Your task to perform on an android device: What is the news today? Image 0: 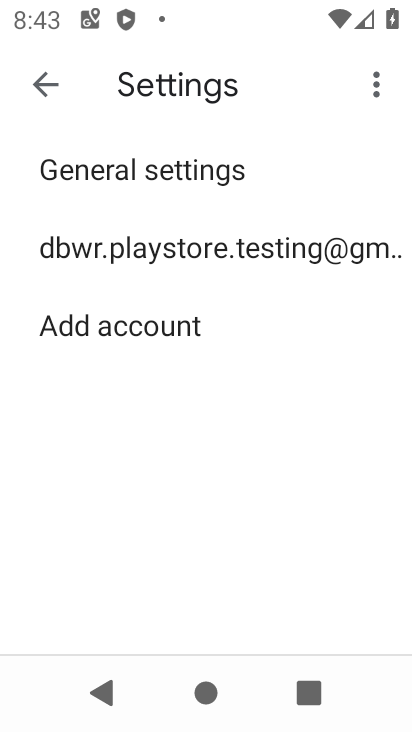
Step 0: press home button
Your task to perform on an android device: What is the news today? Image 1: 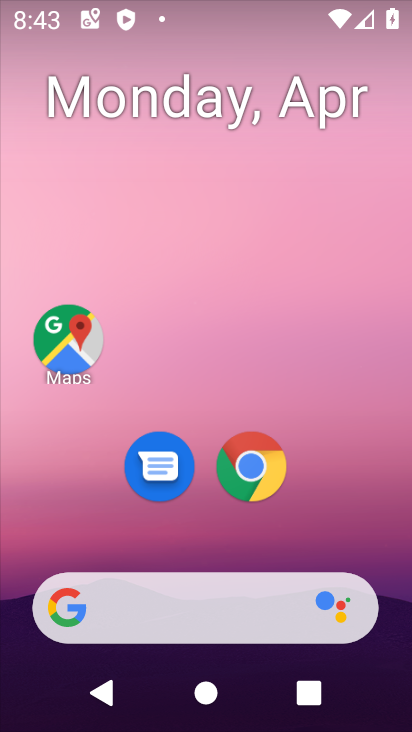
Step 1: drag from (210, 542) to (272, 165)
Your task to perform on an android device: What is the news today? Image 2: 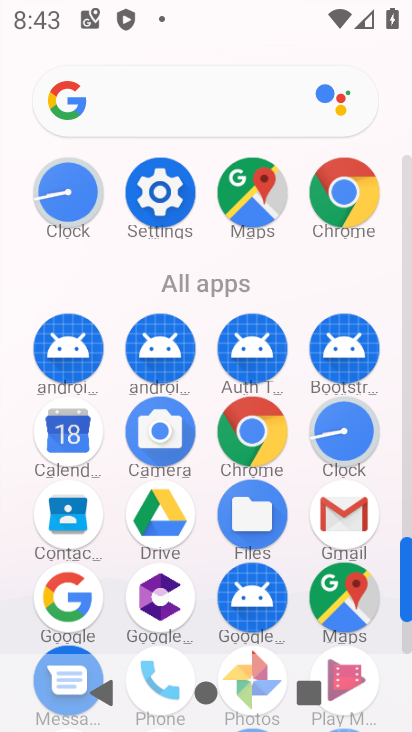
Step 2: click (67, 599)
Your task to perform on an android device: What is the news today? Image 3: 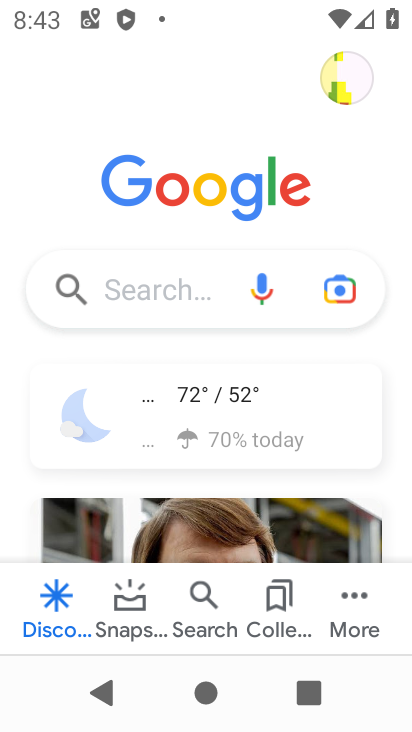
Step 3: drag from (250, 513) to (315, 298)
Your task to perform on an android device: What is the news today? Image 4: 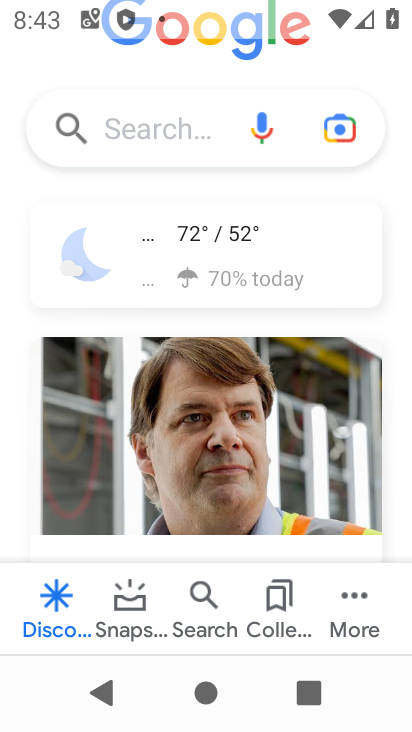
Step 4: drag from (253, 424) to (314, 283)
Your task to perform on an android device: What is the news today? Image 5: 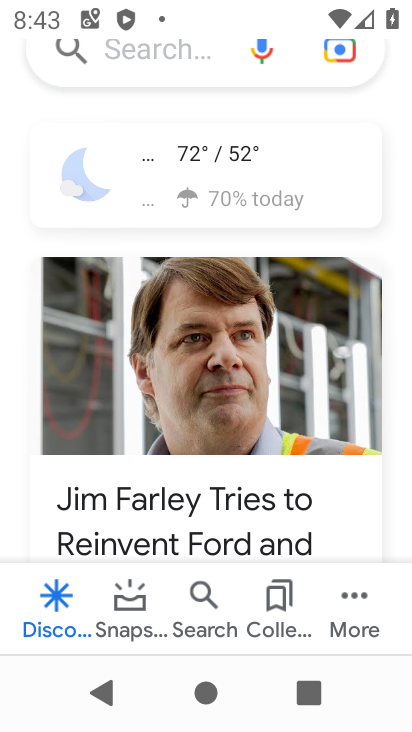
Step 5: drag from (224, 406) to (253, 296)
Your task to perform on an android device: What is the news today? Image 6: 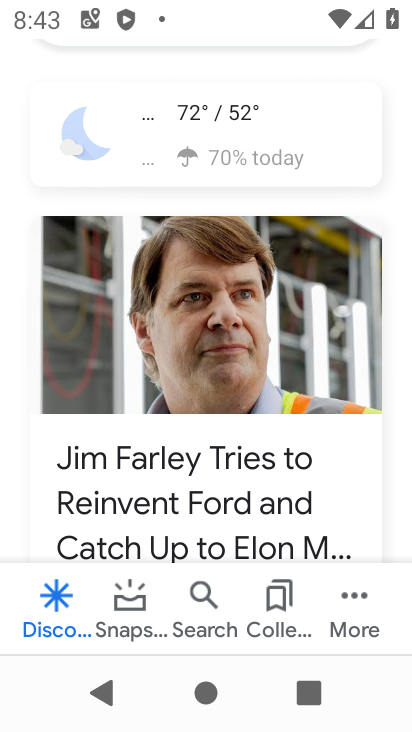
Step 6: drag from (220, 515) to (251, 297)
Your task to perform on an android device: What is the news today? Image 7: 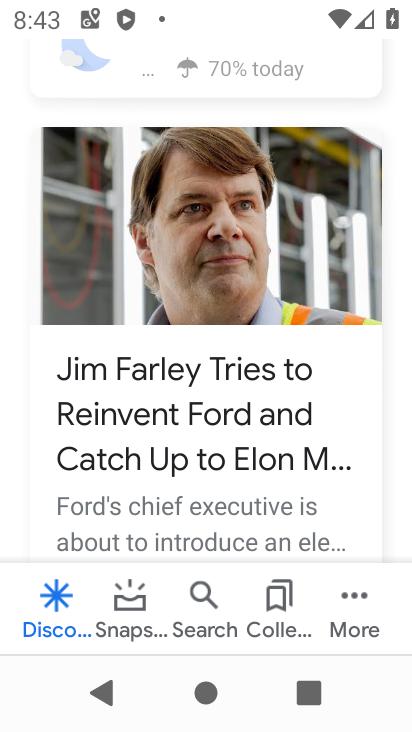
Step 7: drag from (214, 496) to (249, 256)
Your task to perform on an android device: What is the news today? Image 8: 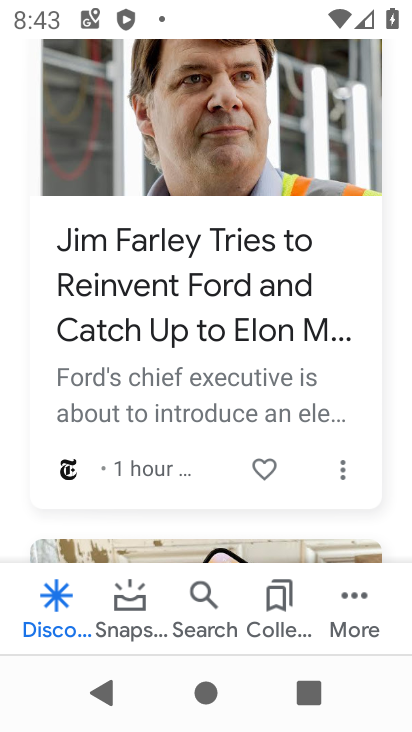
Step 8: click (201, 286)
Your task to perform on an android device: What is the news today? Image 9: 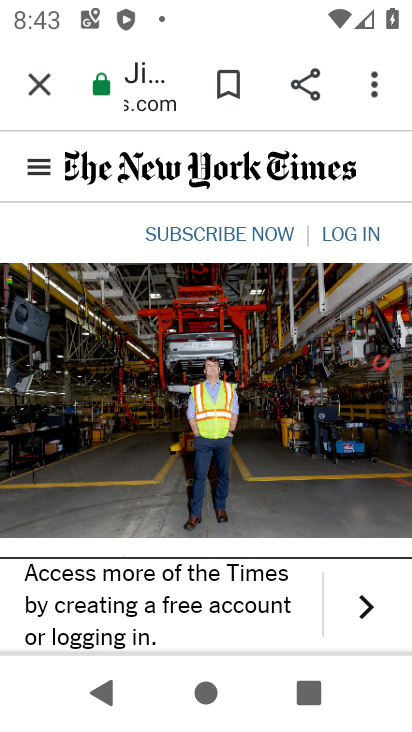
Step 9: task complete